Your task to perform on an android device: Open eBay Image 0: 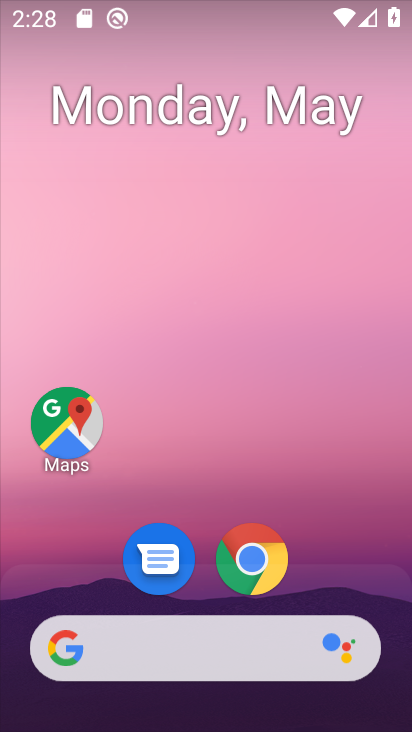
Step 0: drag from (311, 595) to (309, 46)
Your task to perform on an android device: Open eBay Image 1: 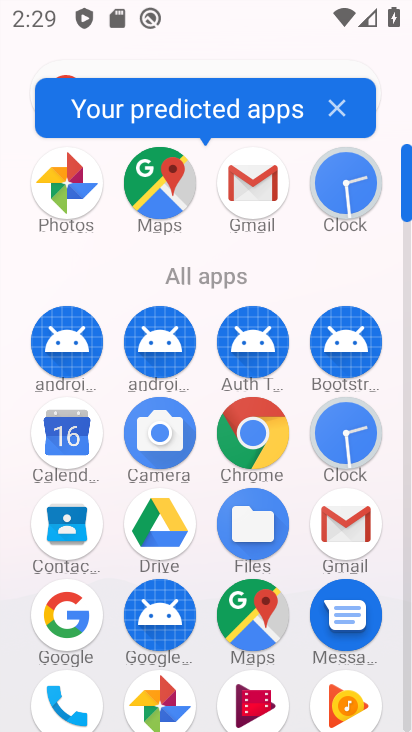
Step 1: click (250, 429)
Your task to perform on an android device: Open eBay Image 2: 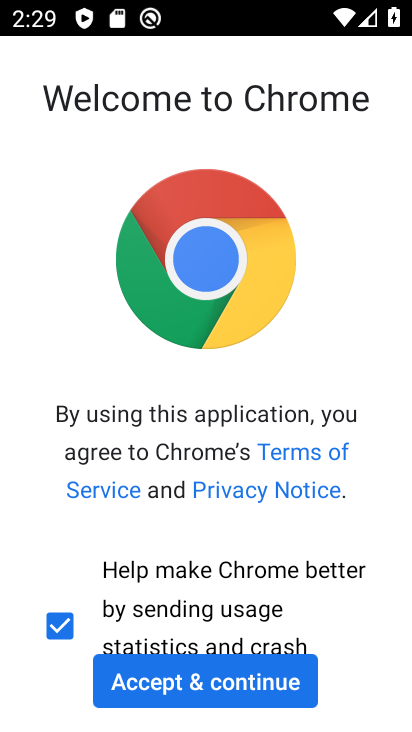
Step 2: click (208, 670)
Your task to perform on an android device: Open eBay Image 3: 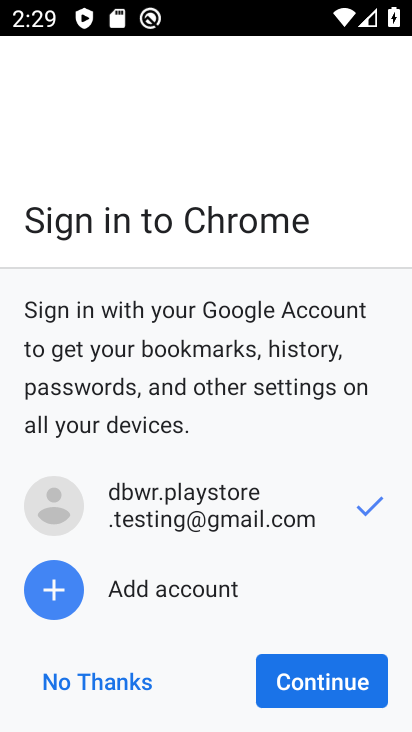
Step 3: click (303, 672)
Your task to perform on an android device: Open eBay Image 4: 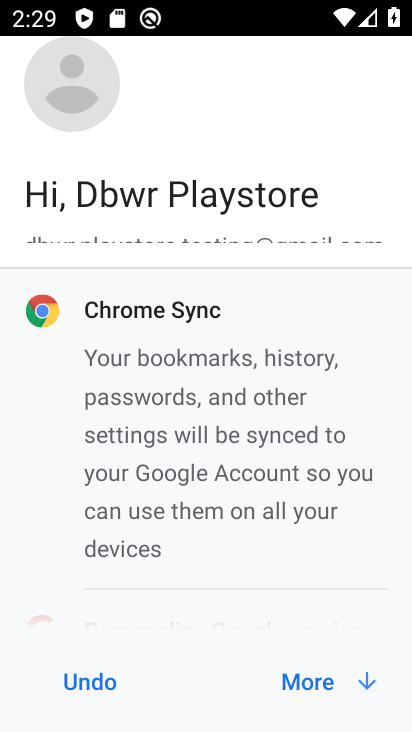
Step 4: click (302, 673)
Your task to perform on an android device: Open eBay Image 5: 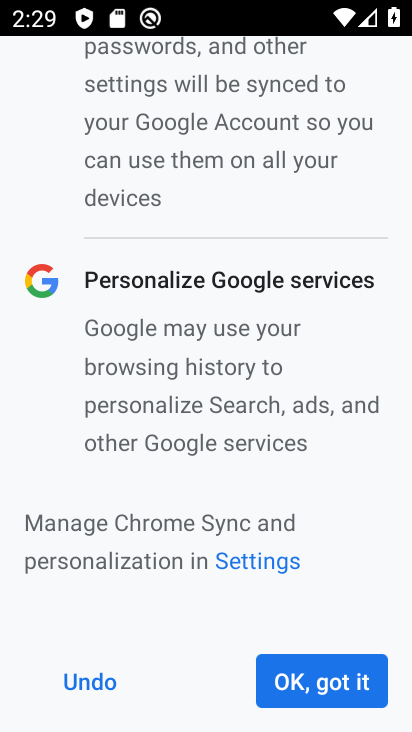
Step 5: click (294, 666)
Your task to perform on an android device: Open eBay Image 6: 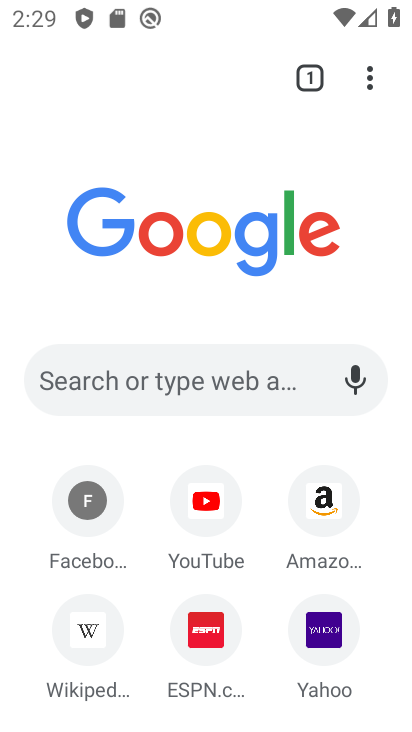
Step 6: click (216, 380)
Your task to perform on an android device: Open eBay Image 7: 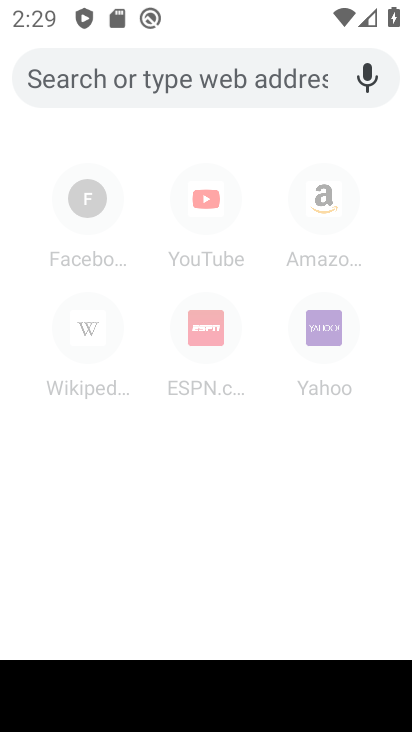
Step 7: type "ebay"
Your task to perform on an android device: Open eBay Image 8: 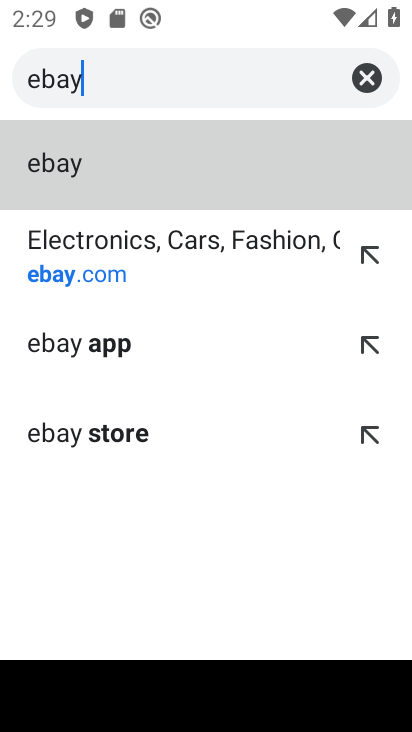
Step 8: click (105, 266)
Your task to perform on an android device: Open eBay Image 9: 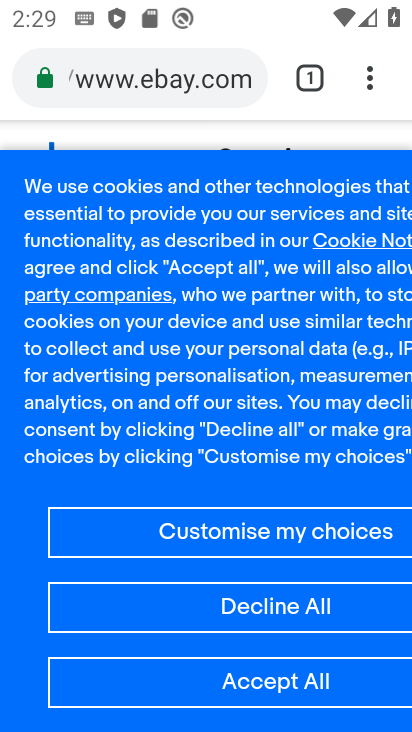
Step 9: click (224, 690)
Your task to perform on an android device: Open eBay Image 10: 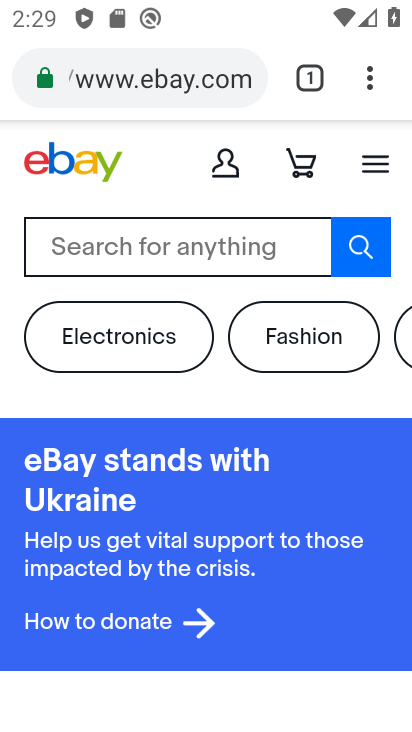
Step 10: task complete